Your task to perform on an android device: Open the settings Image 0: 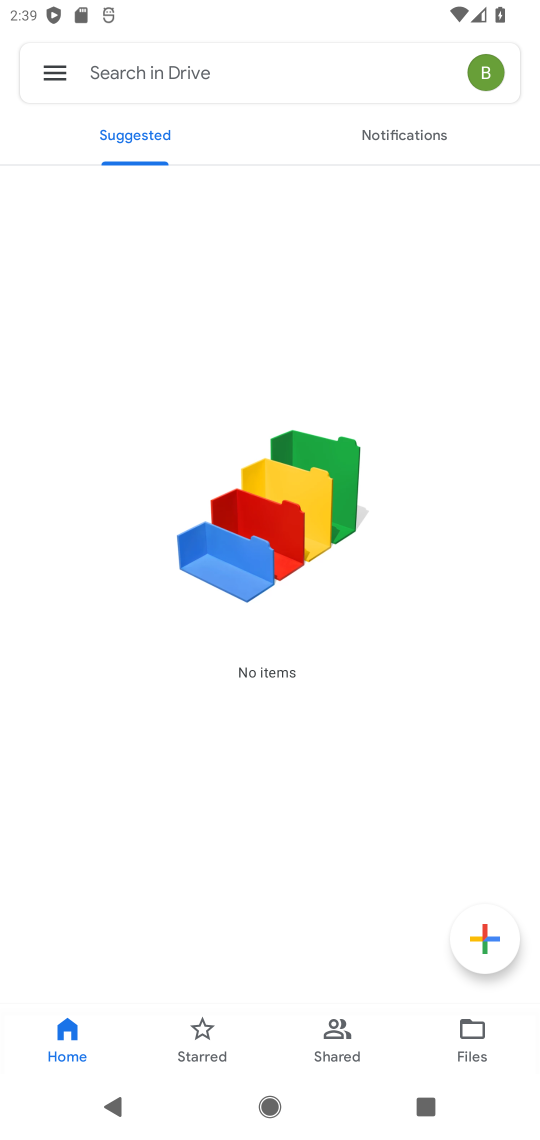
Step 0: press home button
Your task to perform on an android device: Open the settings Image 1: 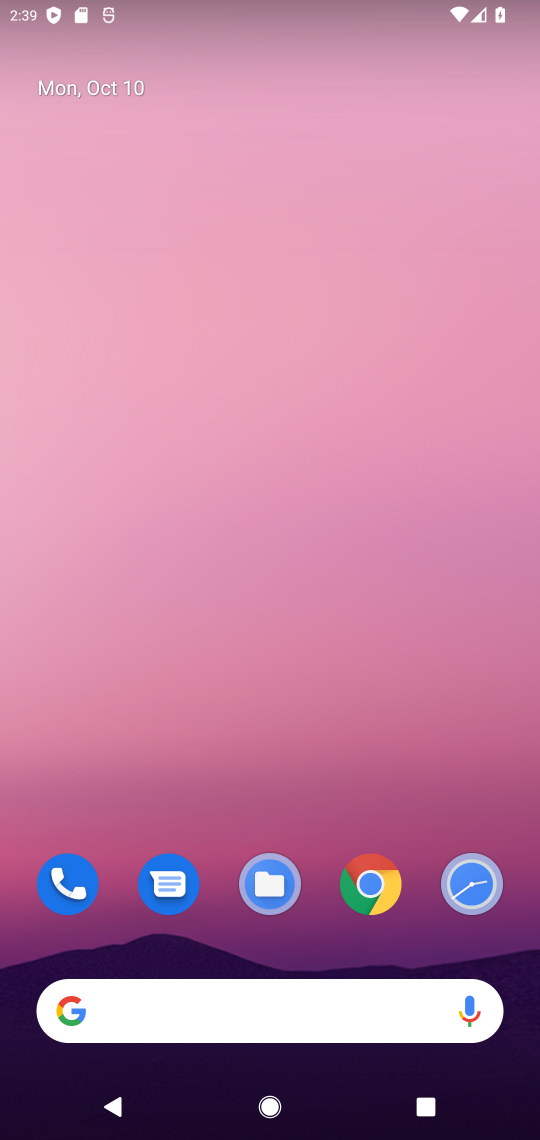
Step 1: drag from (308, 777) to (252, 271)
Your task to perform on an android device: Open the settings Image 2: 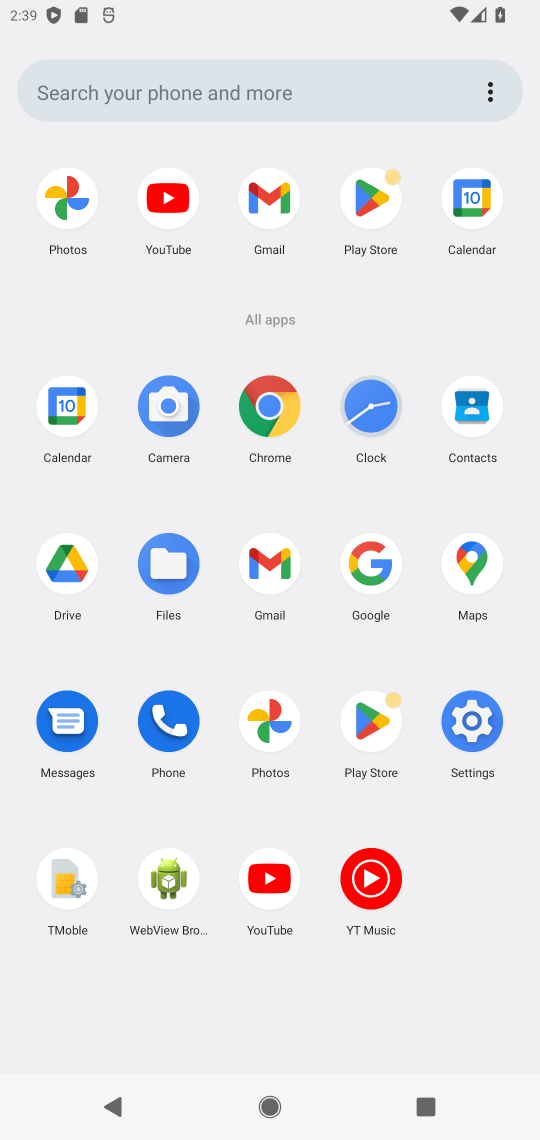
Step 2: click (474, 726)
Your task to perform on an android device: Open the settings Image 3: 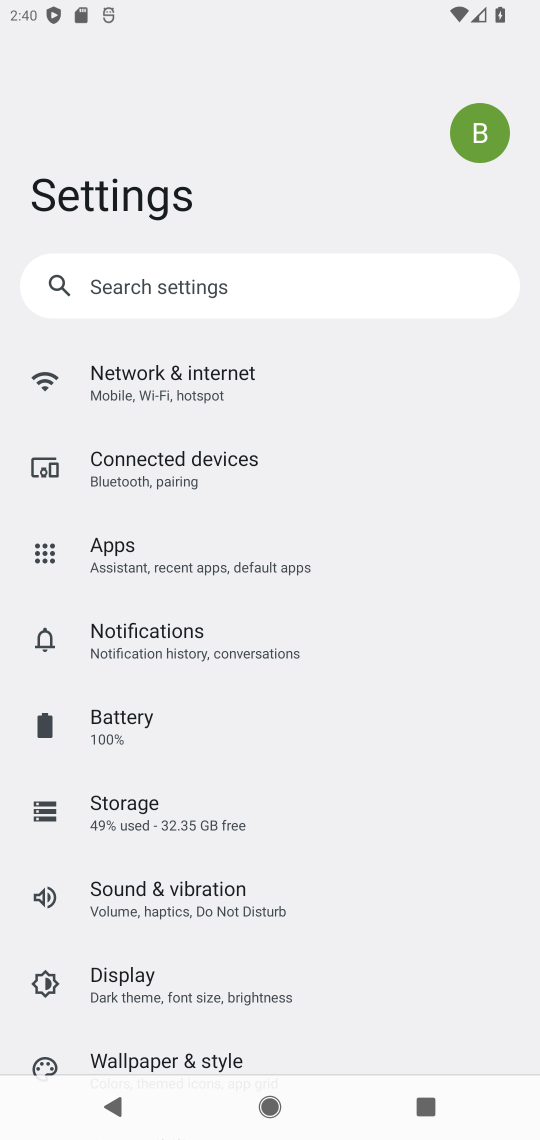
Step 3: task complete